Your task to perform on an android device: choose inbox layout in the gmail app Image 0: 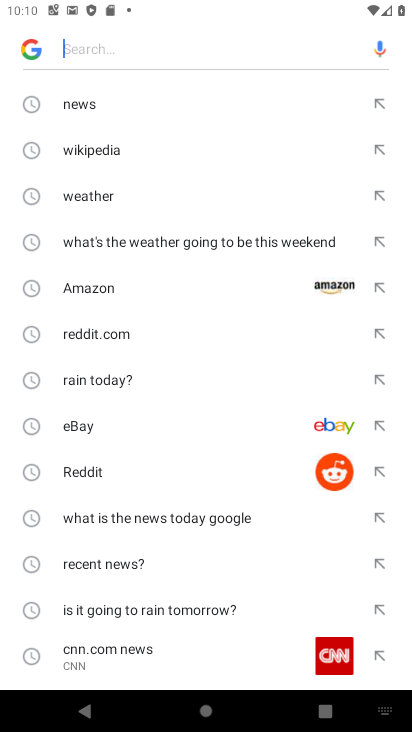
Step 0: press back button
Your task to perform on an android device: choose inbox layout in the gmail app Image 1: 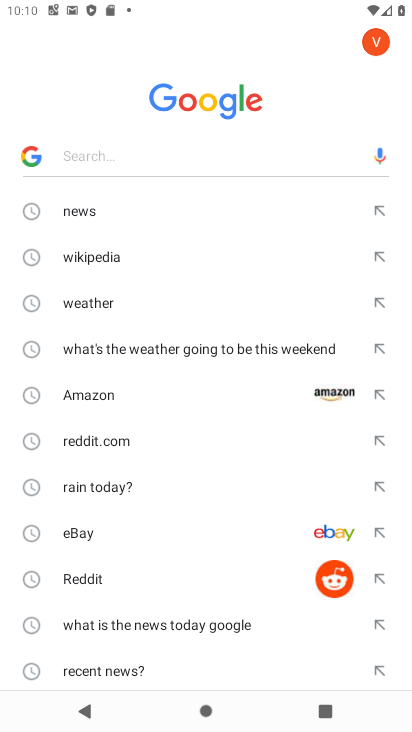
Step 1: press back button
Your task to perform on an android device: choose inbox layout in the gmail app Image 2: 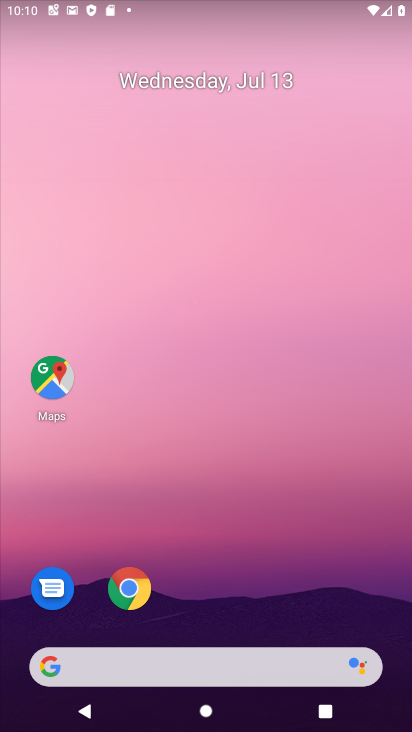
Step 2: drag from (211, 640) to (187, 31)
Your task to perform on an android device: choose inbox layout in the gmail app Image 3: 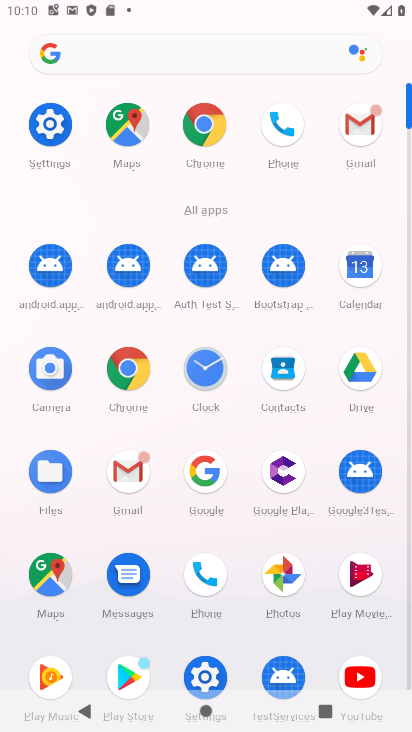
Step 3: click (130, 464)
Your task to perform on an android device: choose inbox layout in the gmail app Image 4: 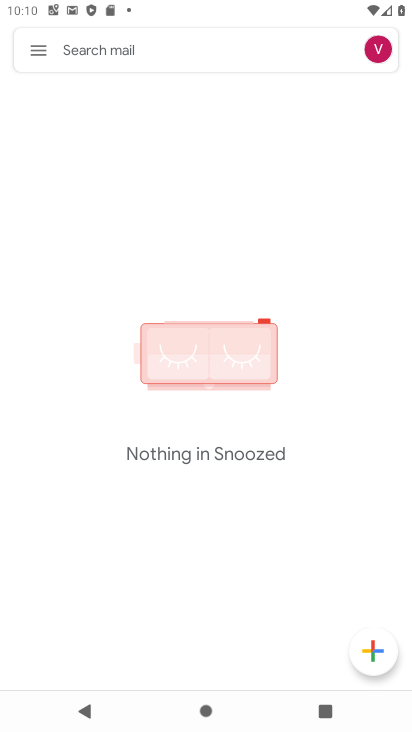
Step 4: click (32, 43)
Your task to perform on an android device: choose inbox layout in the gmail app Image 5: 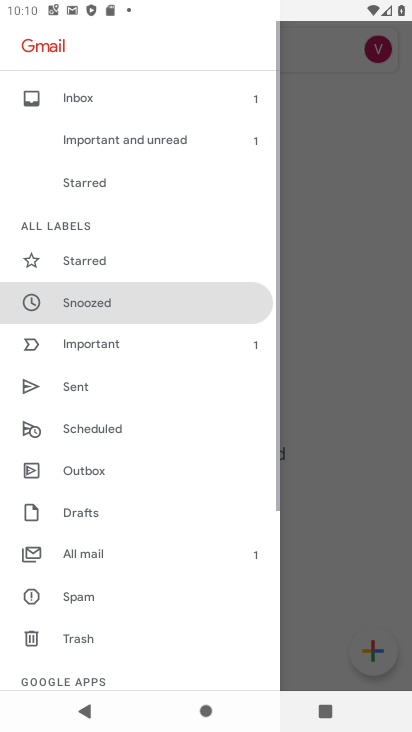
Step 5: click (60, 97)
Your task to perform on an android device: choose inbox layout in the gmail app Image 6: 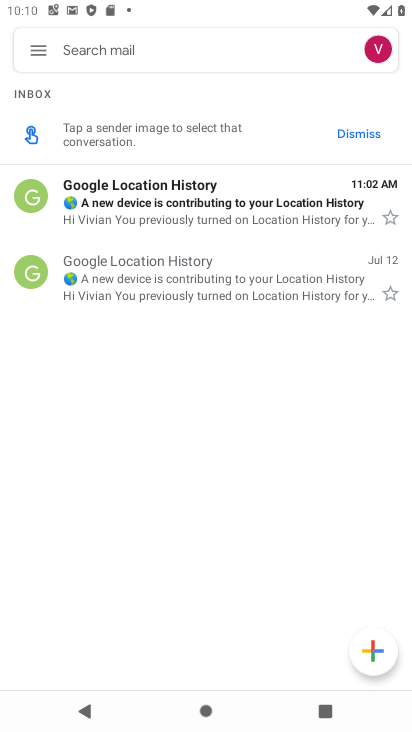
Step 6: task complete